Your task to perform on an android device: change the clock display to show seconds Image 0: 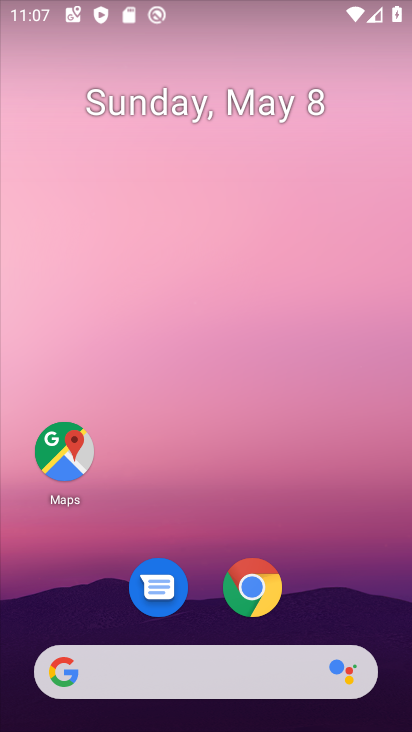
Step 0: drag from (275, 348) to (186, 27)
Your task to perform on an android device: change the clock display to show seconds Image 1: 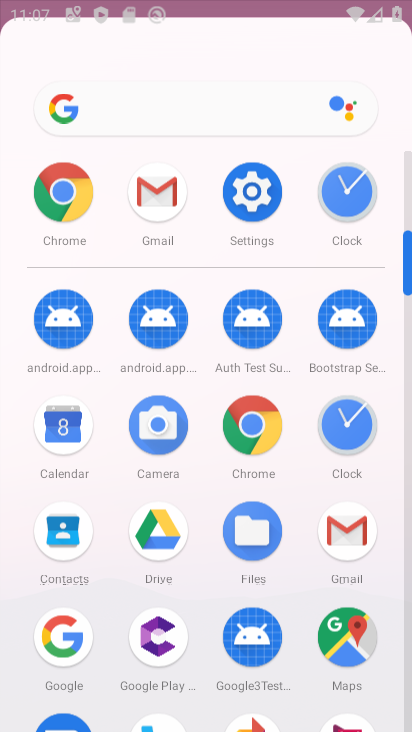
Step 1: drag from (272, 394) to (193, 70)
Your task to perform on an android device: change the clock display to show seconds Image 2: 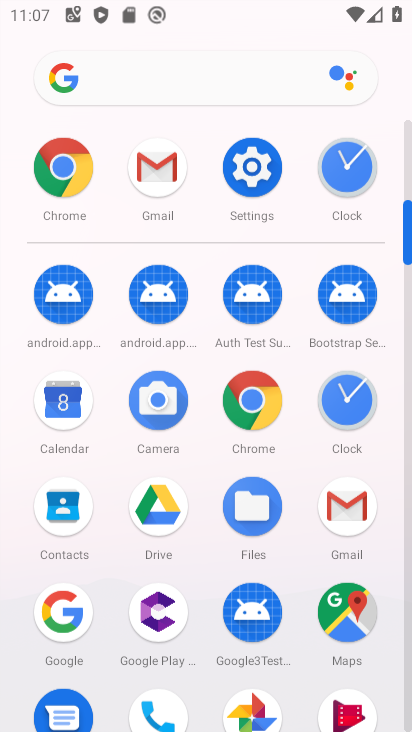
Step 2: drag from (311, 548) to (240, 23)
Your task to perform on an android device: change the clock display to show seconds Image 3: 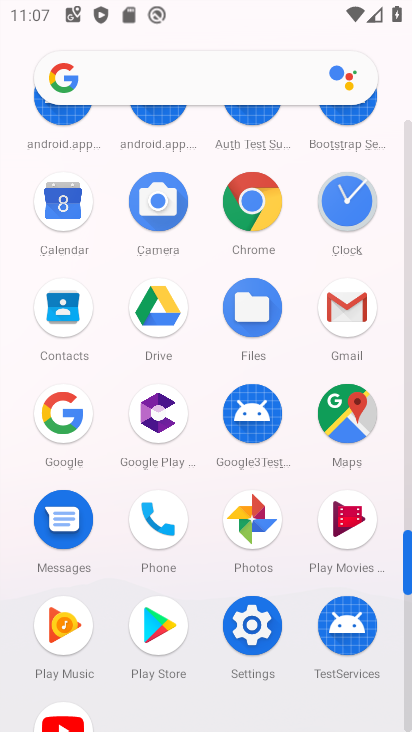
Step 3: click (349, 218)
Your task to perform on an android device: change the clock display to show seconds Image 4: 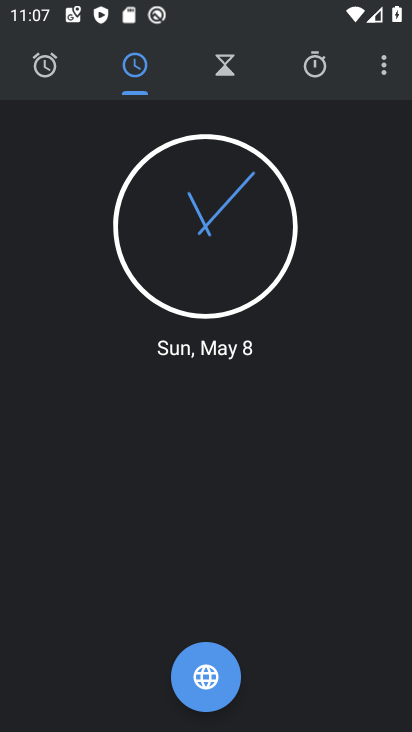
Step 4: click (376, 74)
Your task to perform on an android device: change the clock display to show seconds Image 5: 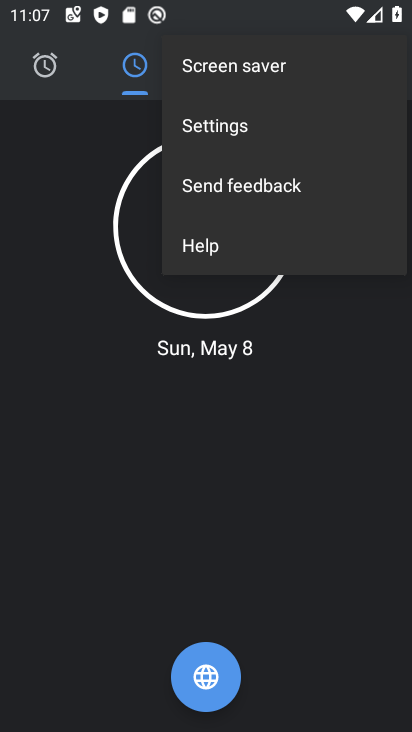
Step 5: click (212, 130)
Your task to perform on an android device: change the clock display to show seconds Image 6: 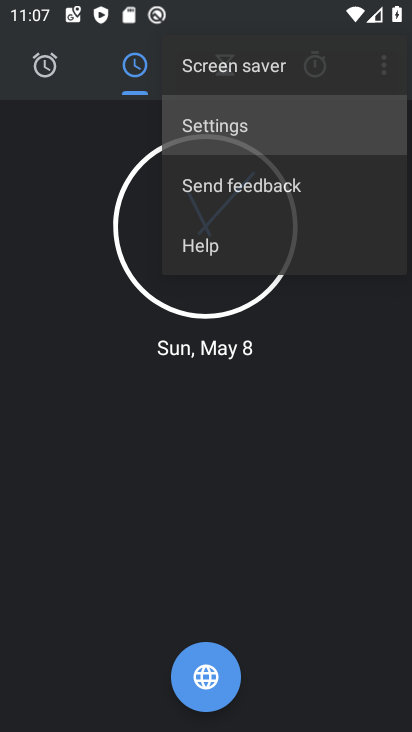
Step 6: click (209, 130)
Your task to perform on an android device: change the clock display to show seconds Image 7: 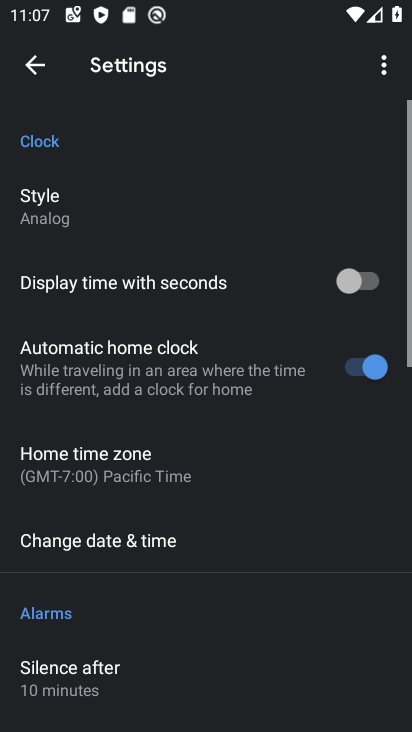
Step 7: click (208, 131)
Your task to perform on an android device: change the clock display to show seconds Image 8: 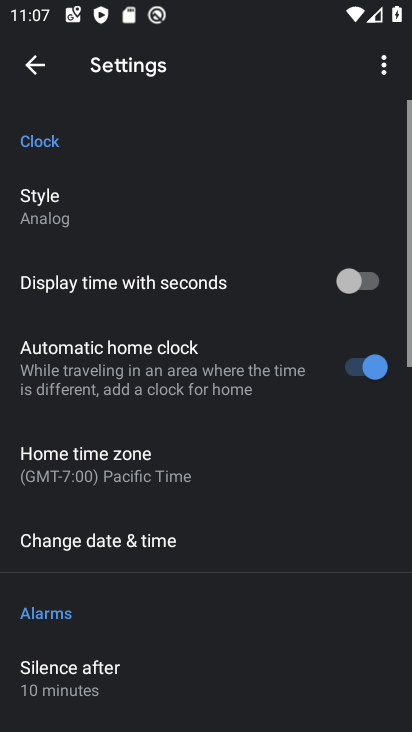
Step 8: click (208, 131)
Your task to perform on an android device: change the clock display to show seconds Image 9: 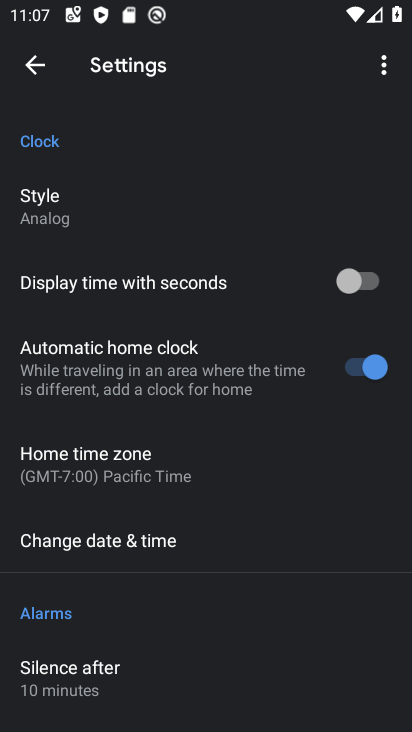
Step 9: click (85, 207)
Your task to perform on an android device: change the clock display to show seconds Image 10: 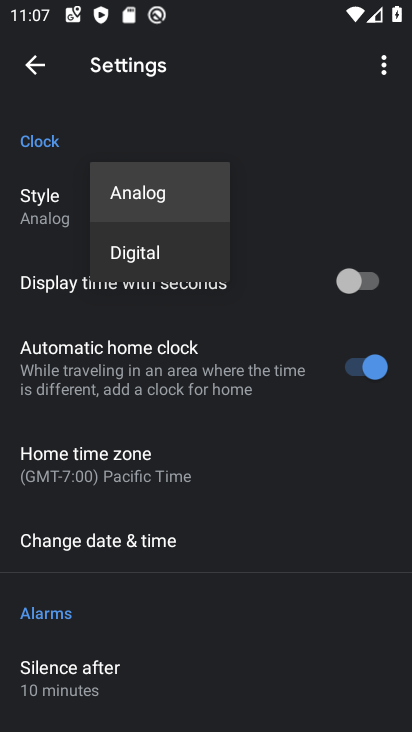
Step 10: click (280, 215)
Your task to perform on an android device: change the clock display to show seconds Image 11: 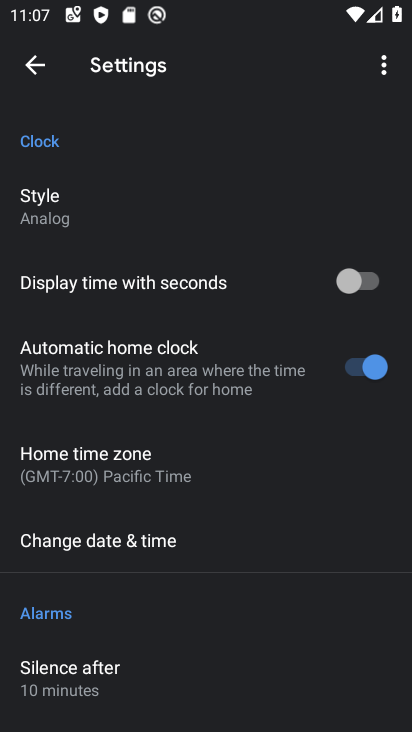
Step 11: click (349, 273)
Your task to perform on an android device: change the clock display to show seconds Image 12: 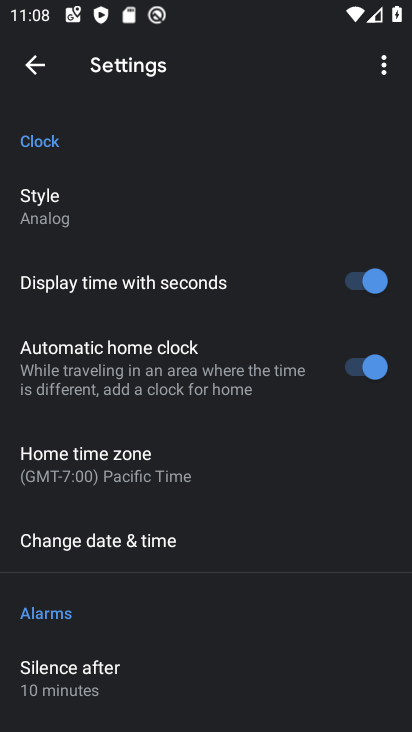
Step 12: task complete